Your task to perform on an android device: Open display settings Image 0: 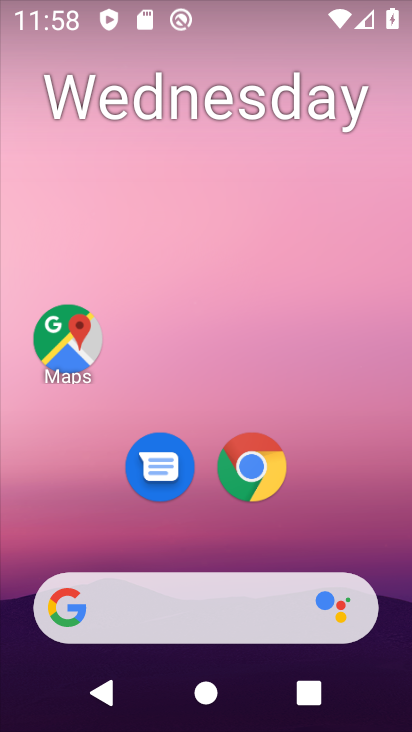
Step 0: click (274, 467)
Your task to perform on an android device: Open display settings Image 1: 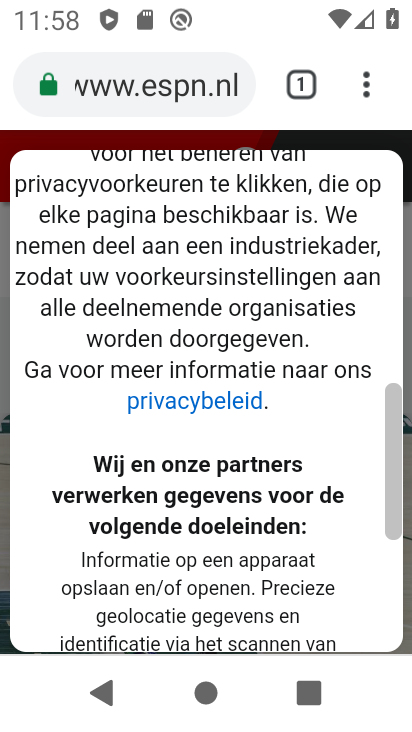
Step 1: click (146, 86)
Your task to perform on an android device: Open display settings Image 2: 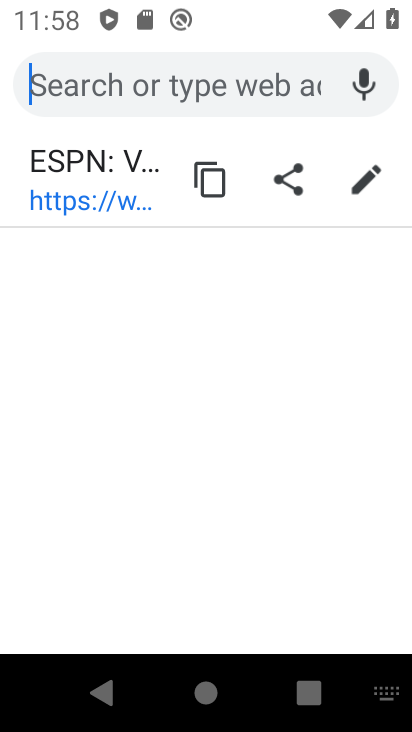
Step 2: type "amazon.com"
Your task to perform on an android device: Open display settings Image 3: 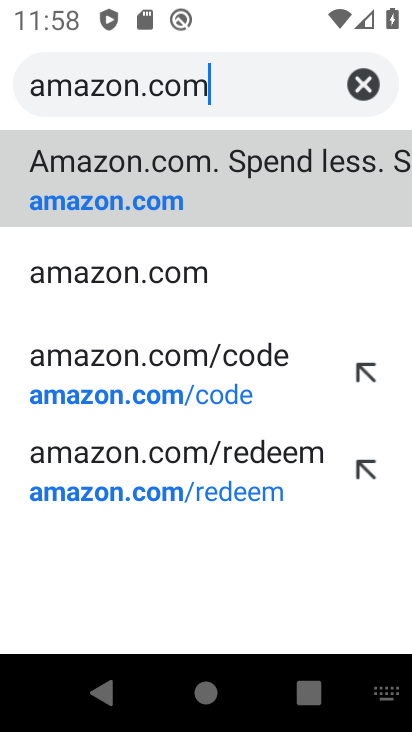
Step 3: click (107, 165)
Your task to perform on an android device: Open display settings Image 4: 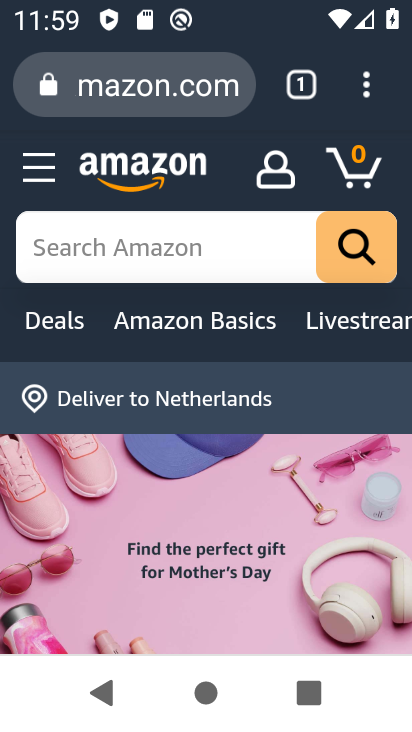
Step 4: task complete